Your task to perform on an android device: toggle location history Image 0: 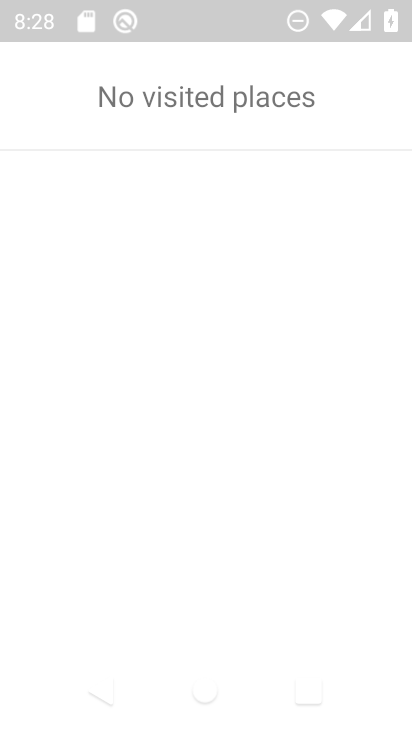
Step 0: press home button
Your task to perform on an android device: toggle location history Image 1: 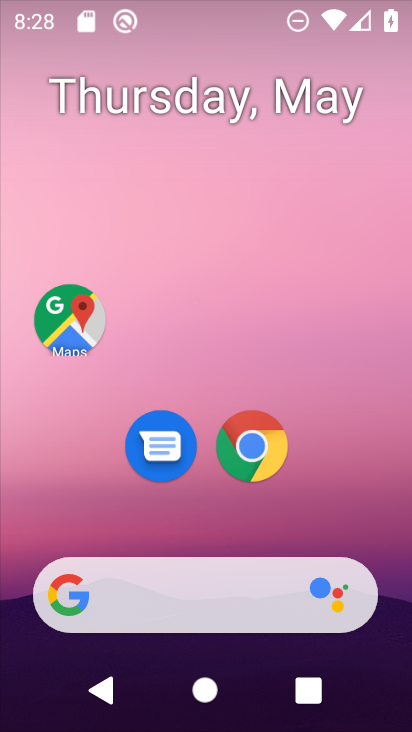
Step 1: drag from (357, 528) to (348, 138)
Your task to perform on an android device: toggle location history Image 2: 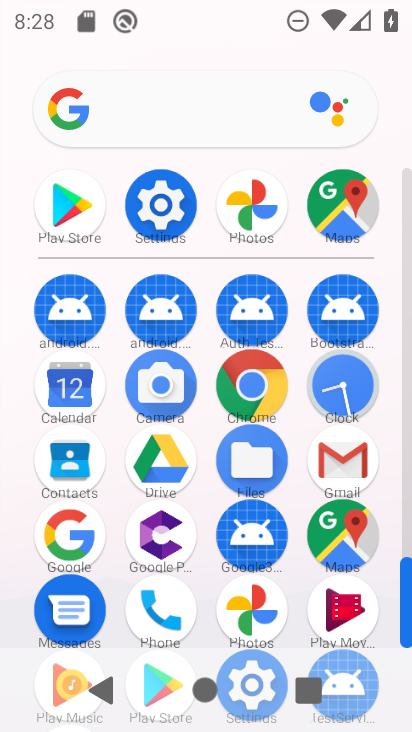
Step 2: click (138, 212)
Your task to perform on an android device: toggle location history Image 3: 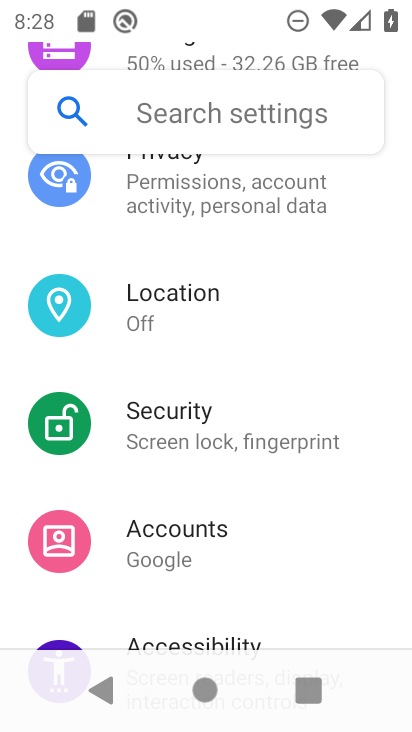
Step 3: click (192, 297)
Your task to perform on an android device: toggle location history Image 4: 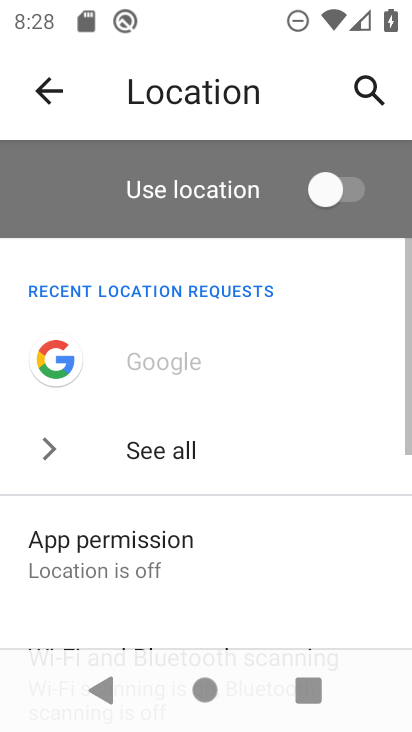
Step 4: drag from (231, 586) to (239, 240)
Your task to perform on an android device: toggle location history Image 5: 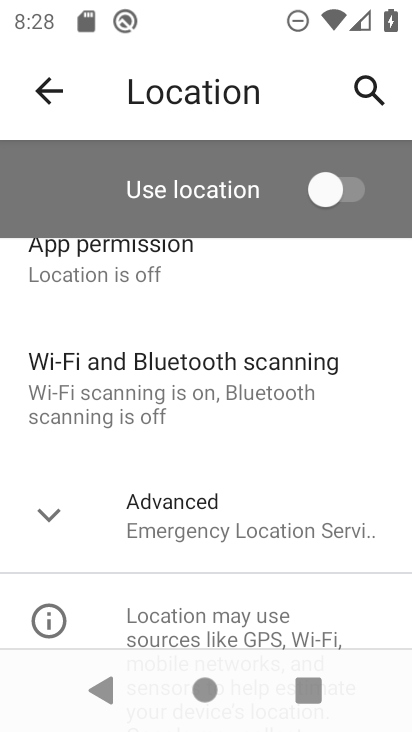
Step 5: click (244, 534)
Your task to perform on an android device: toggle location history Image 6: 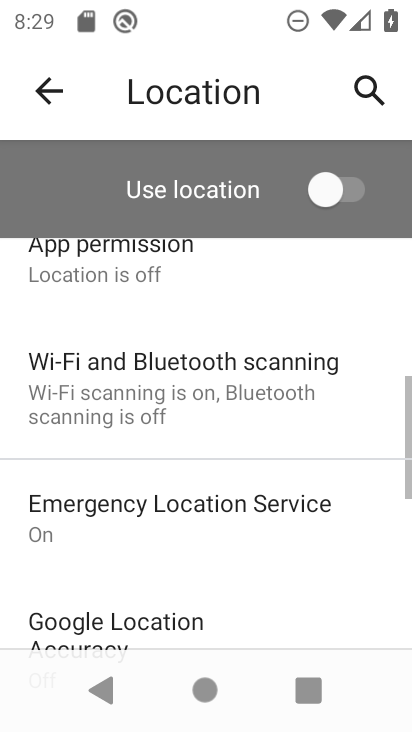
Step 6: drag from (263, 579) to (238, 275)
Your task to perform on an android device: toggle location history Image 7: 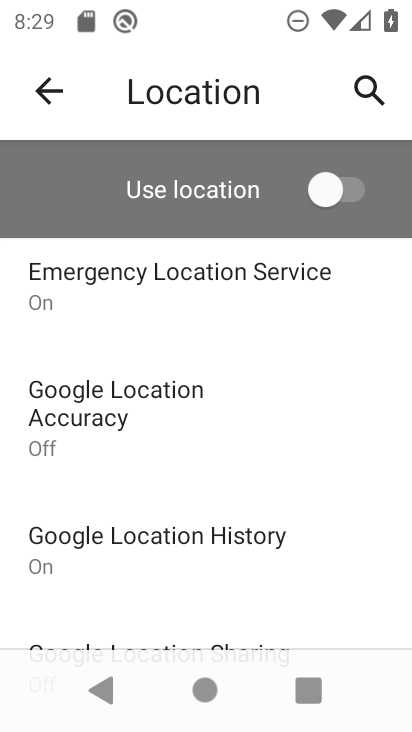
Step 7: click (227, 554)
Your task to perform on an android device: toggle location history Image 8: 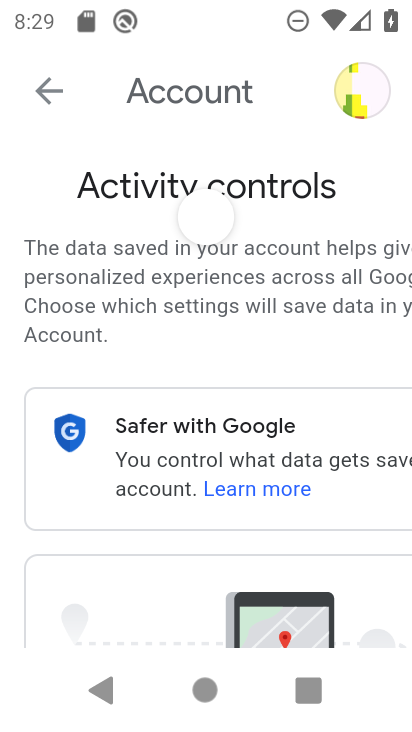
Step 8: drag from (157, 582) to (215, 329)
Your task to perform on an android device: toggle location history Image 9: 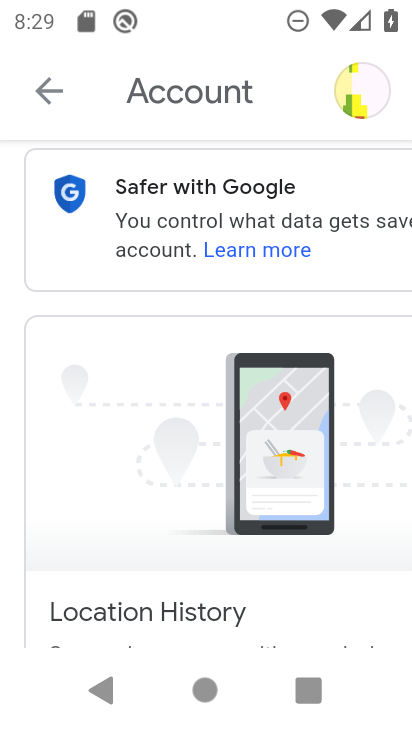
Step 9: drag from (120, 562) to (158, 288)
Your task to perform on an android device: toggle location history Image 10: 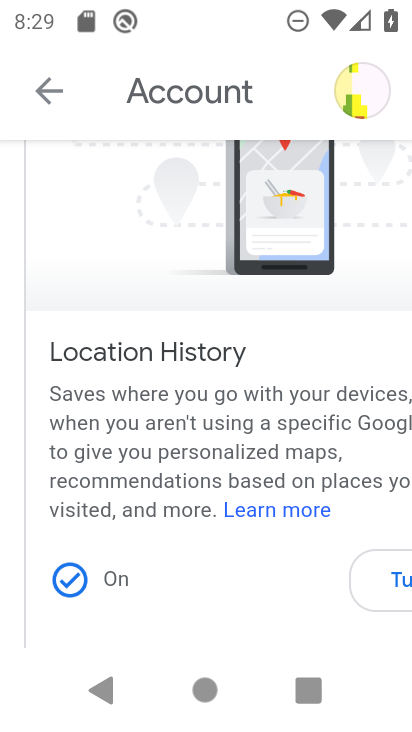
Step 10: click (405, 586)
Your task to perform on an android device: toggle location history Image 11: 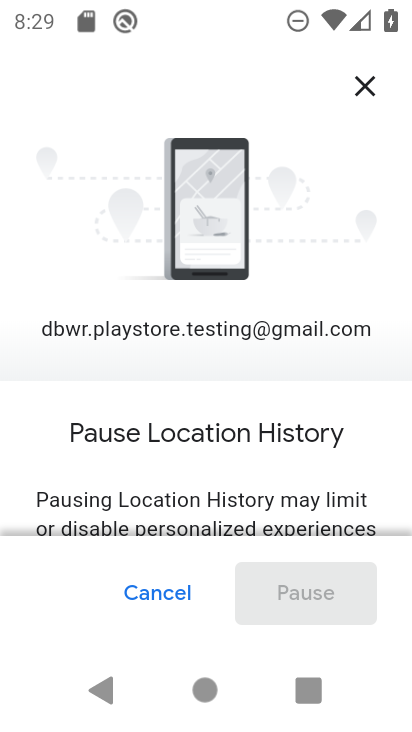
Step 11: drag from (301, 496) to (299, 73)
Your task to perform on an android device: toggle location history Image 12: 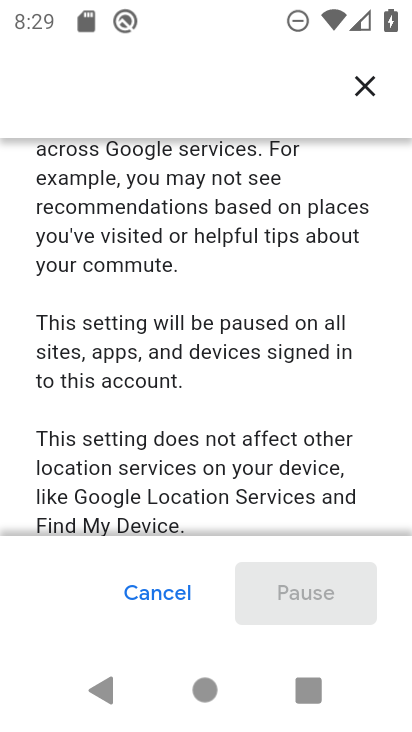
Step 12: drag from (275, 502) to (231, 121)
Your task to perform on an android device: toggle location history Image 13: 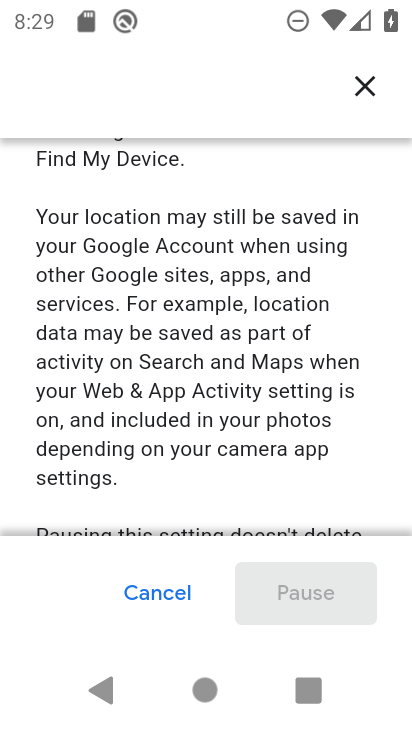
Step 13: drag from (256, 496) to (222, 98)
Your task to perform on an android device: toggle location history Image 14: 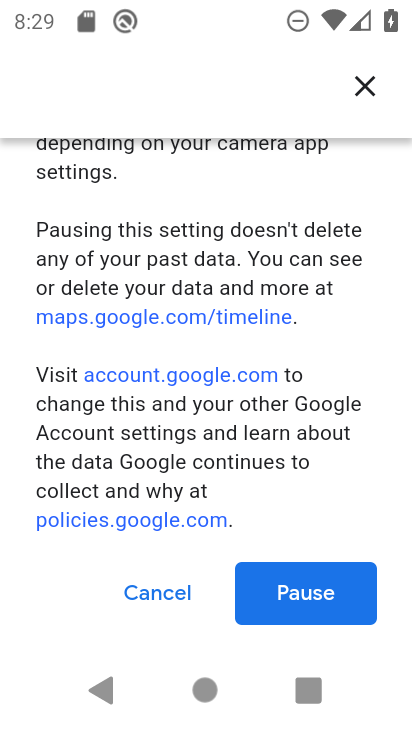
Step 14: click (285, 612)
Your task to perform on an android device: toggle location history Image 15: 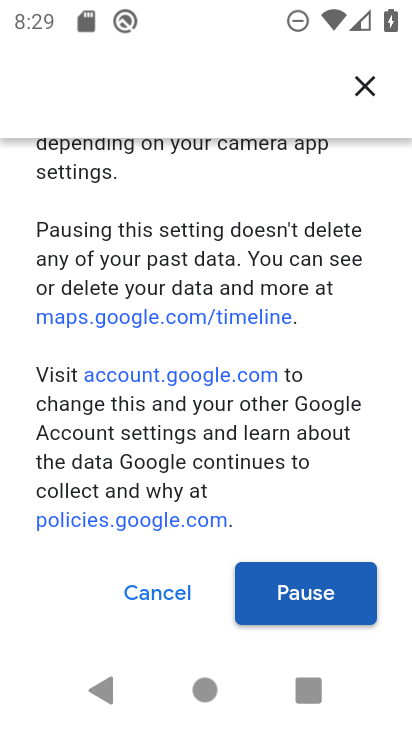
Step 15: click (286, 605)
Your task to perform on an android device: toggle location history Image 16: 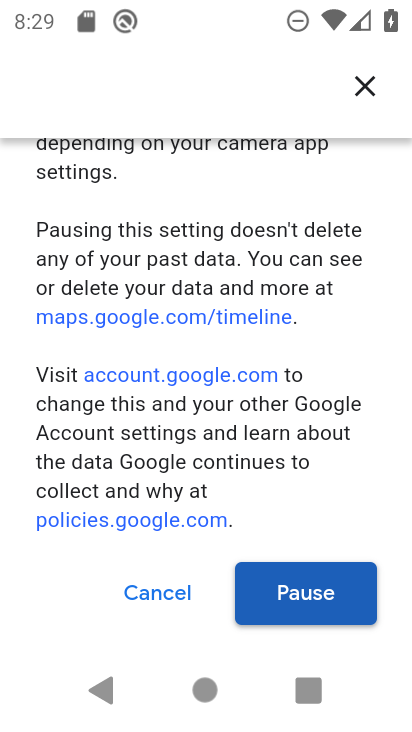
Step 16: click (291, 593)
Your task to perform on an android device: toggle location history Image 17: 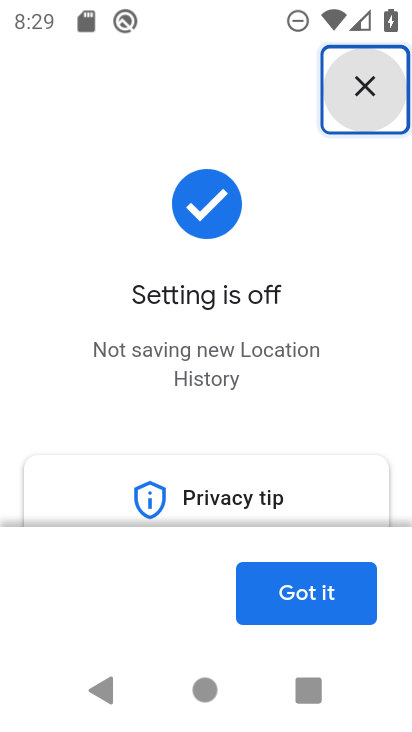
Step 17: task complete